Your task to perform on an android device: Show me the alarms in the clock app Image 0: 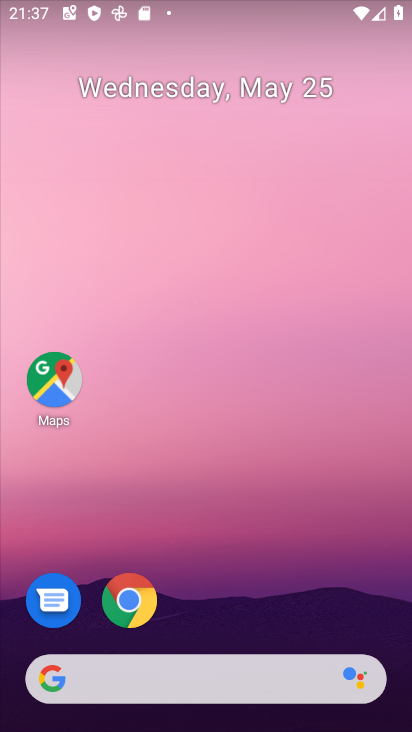
Step 0: drag from (303, 472) to (290, 174)
Your task to perform on an android device: Show me the alarms in the clock app Image 1: 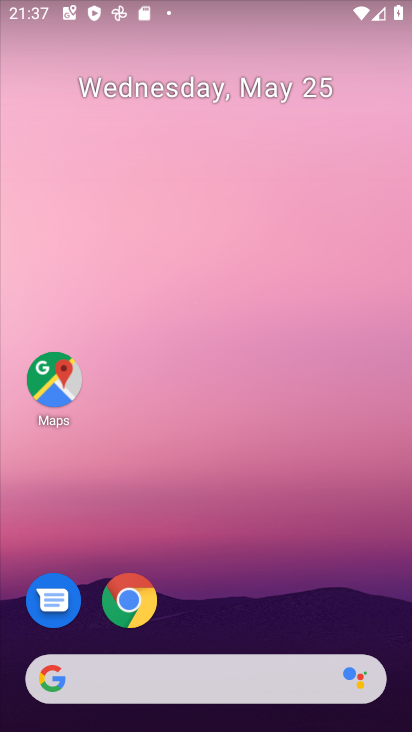
Step 1: drag from (336, 537) to (303, 168)
Your task to perform on an android device: Show me the alarms in the clock app Image 2: 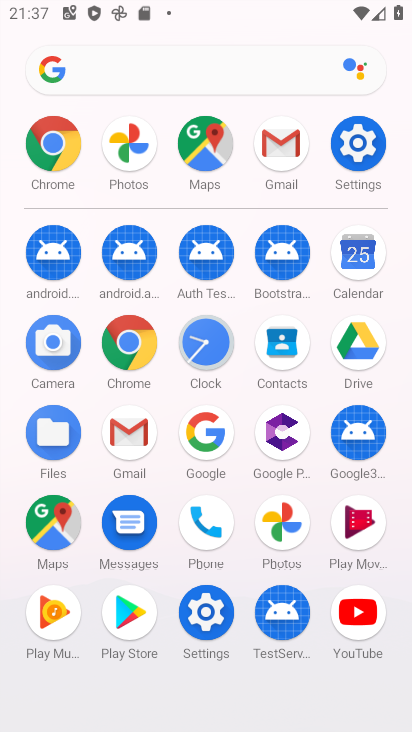
Step 2: click (206, 343)
Your task to perform on an android device: Show me the alarms in the clock app Image 3: 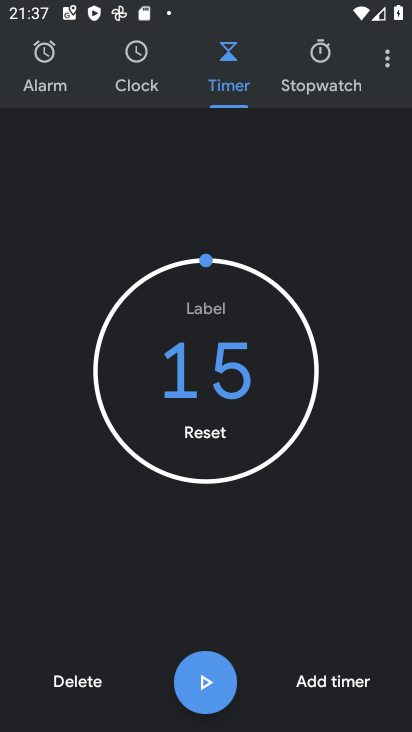
Step 3: click (52, 71)
Your task to perform on an android device: Show me the alarms in the clock app Image 4: 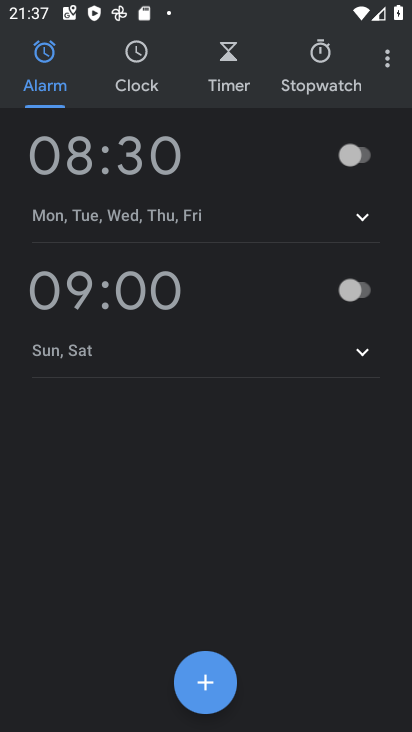
Step 4: task complete